Your task to perform on an android device: Open Wikipedia Image 0: 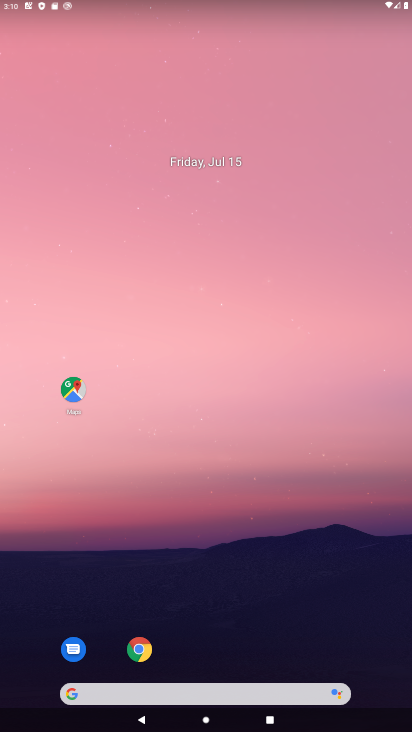
Step 0: drag from (231, 543) to (236, 34)
Your task to perform on an android device: Open Wikipedia Image 1: 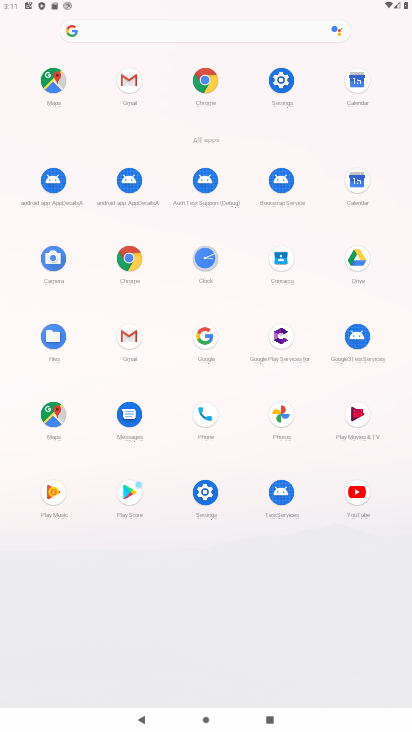
Step 1: click (210, 79)
Your task to perform on an android device: Open Wikipedia Image 2: 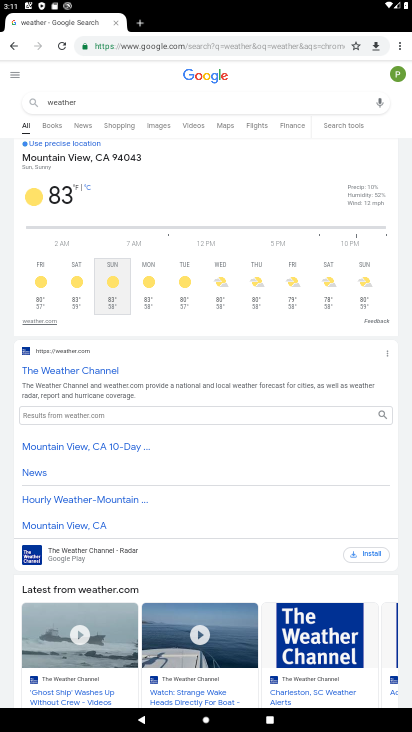
Step 2: click (184, 39)
Your task to perform on an android device: Open Wikipedia Image 3: 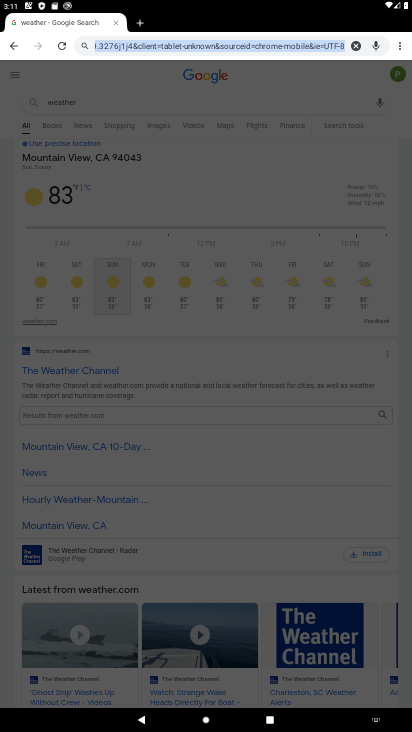
Step 3: type "wikipedia"
Your task to perform on an android device: Open Wikipedia Image 4: 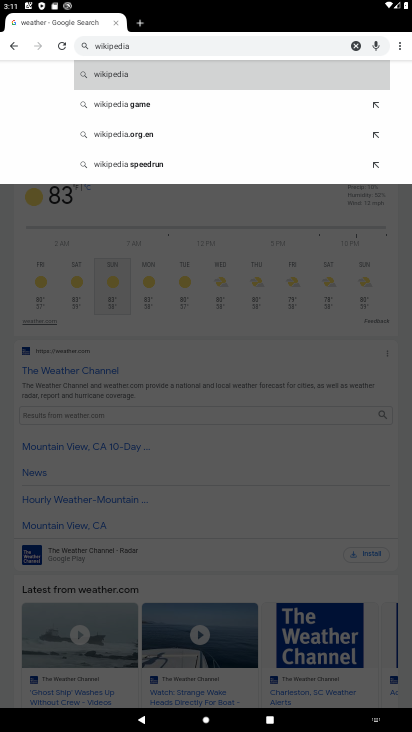
Step 4: click (115, 77)
Your task to perform on an android device: Open Wikipedia Image 5: 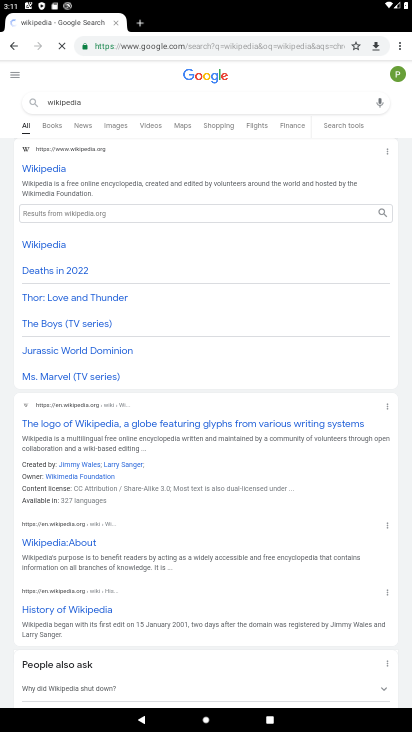
Step 5: click (54, 170)
Your task to perform on an android device: Open Wikipedia Image 6: 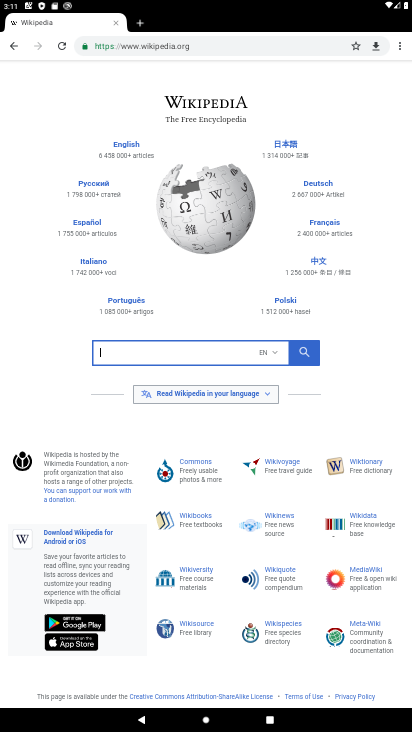
Step 6: task complete